Your task to perform on an android device: turn smart compose on in the gmail app Image 0: 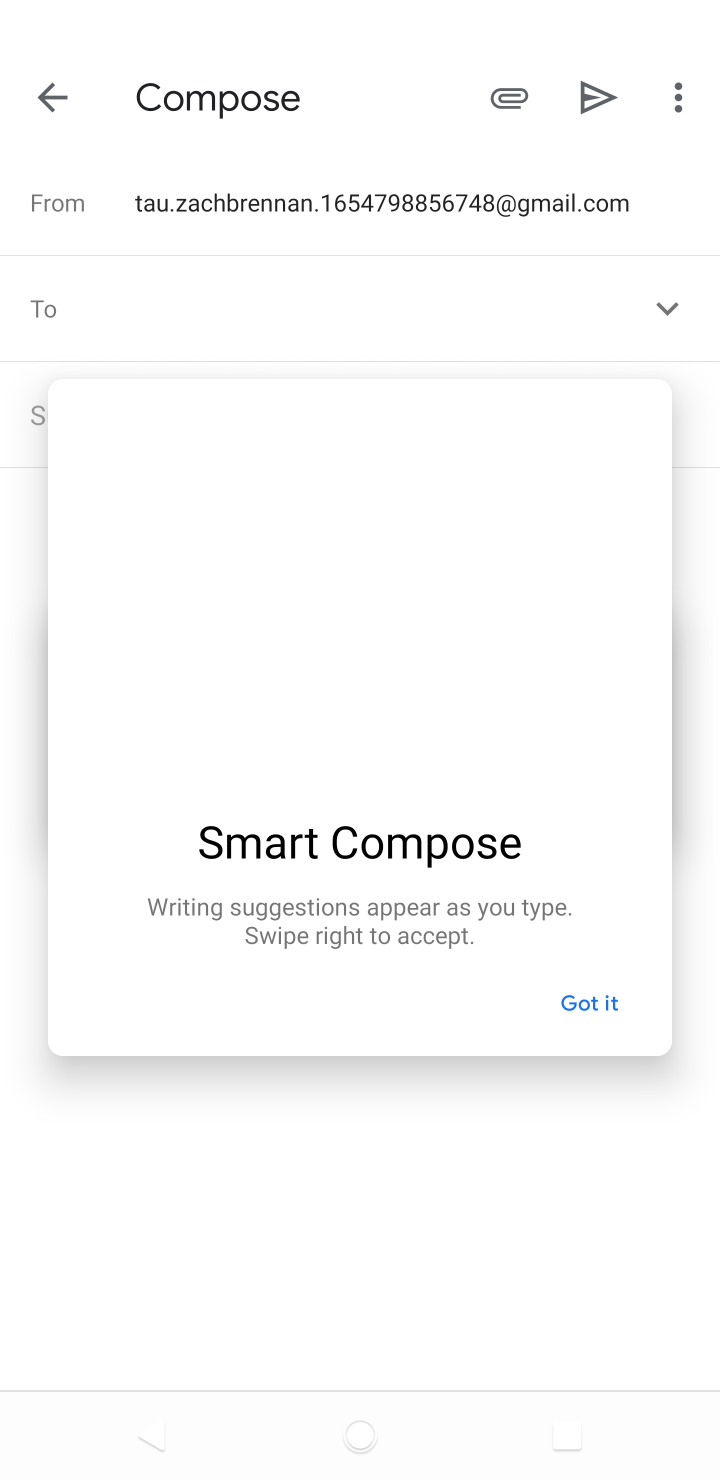
Step 0: click (185, 1332)
Your task to perform on an android device: turn smart compose on in the gmail app Image 1: 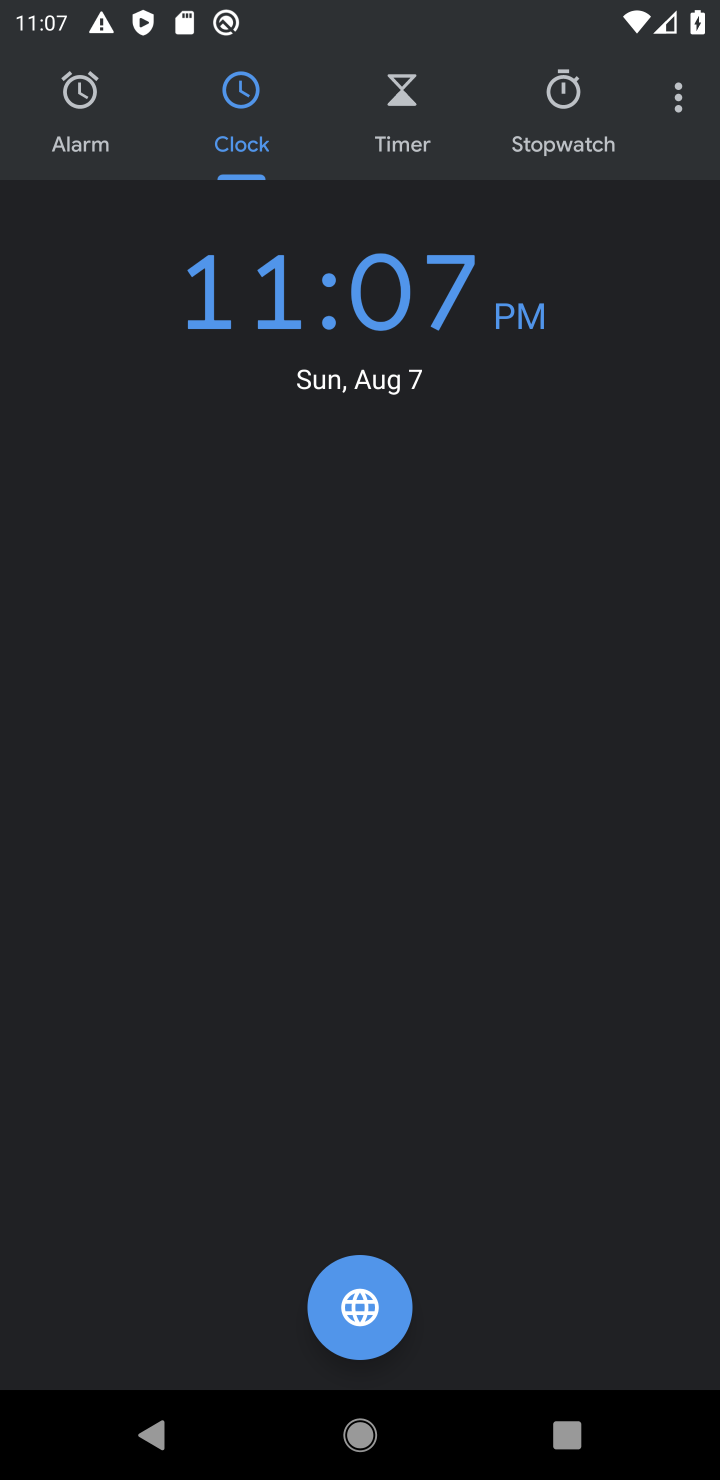
Step 1: press home button
Your task to perform on an android device: turn smart compose on in the gmail app Image 2: 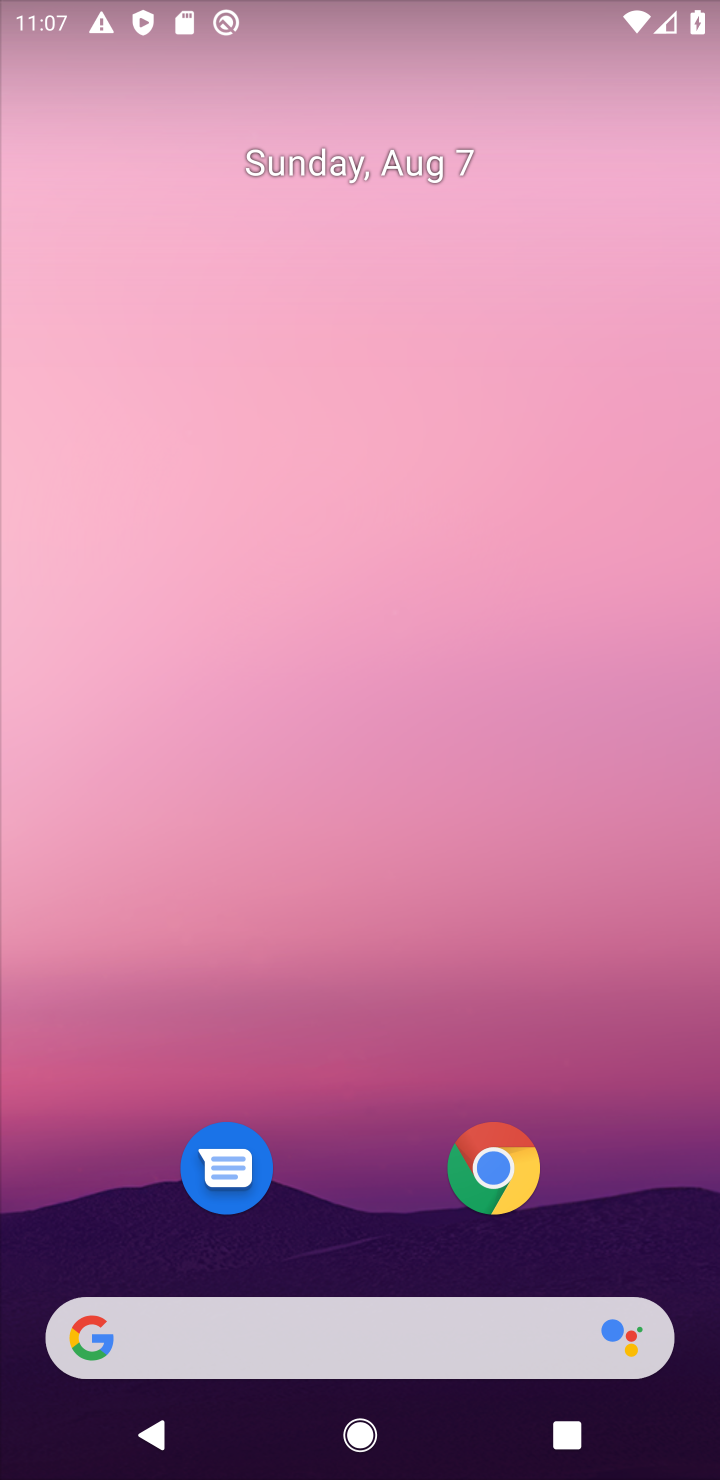
Step 2: drag from (58, 1435) to (359, 75)
Your task to perform on an android device: turn smart compose on in the gmail app Image 3: 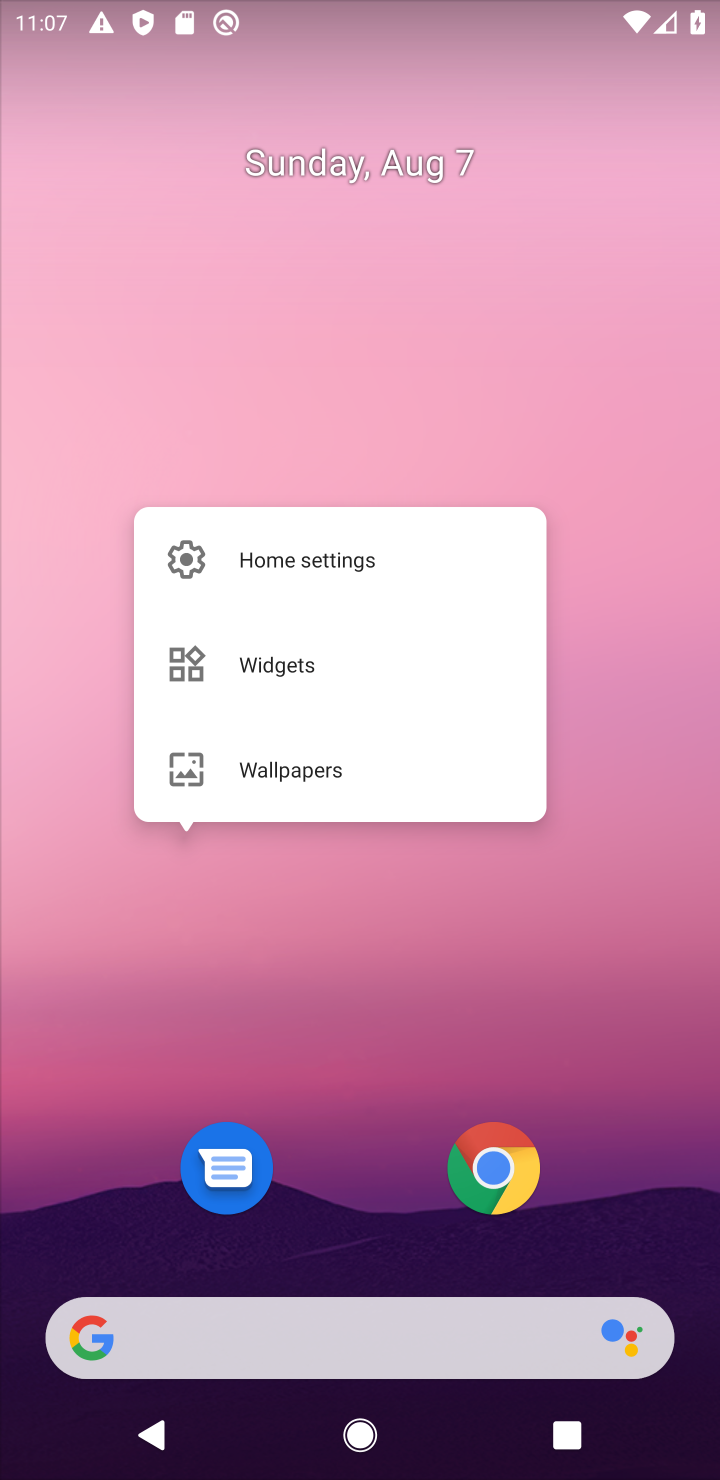
Step 3: click (46, 1368)
Your task to perform on an android device: turn smart compose on in the gmail app Image 4: 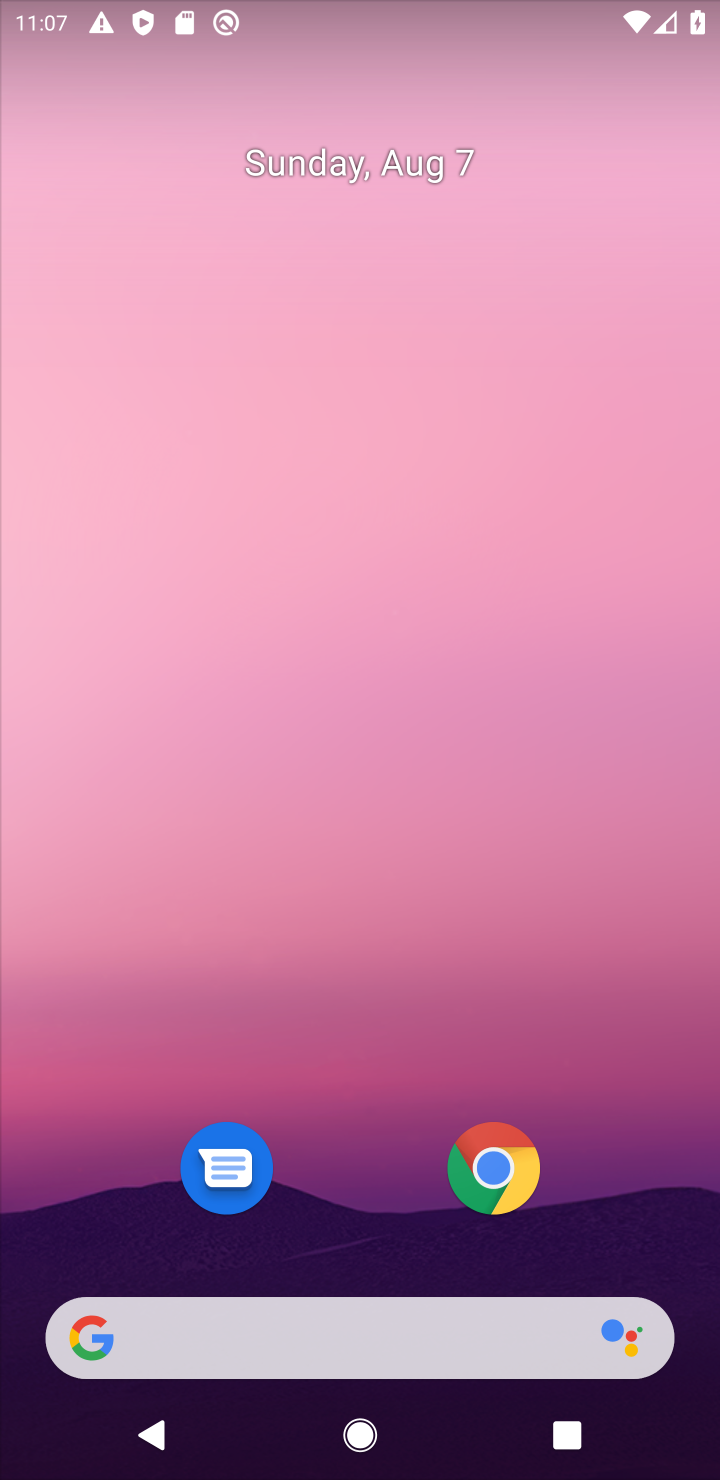
Step 4: click (74, 1422)
Your task to perform on an android device: turn smart compose on in the gmail app Image 5: 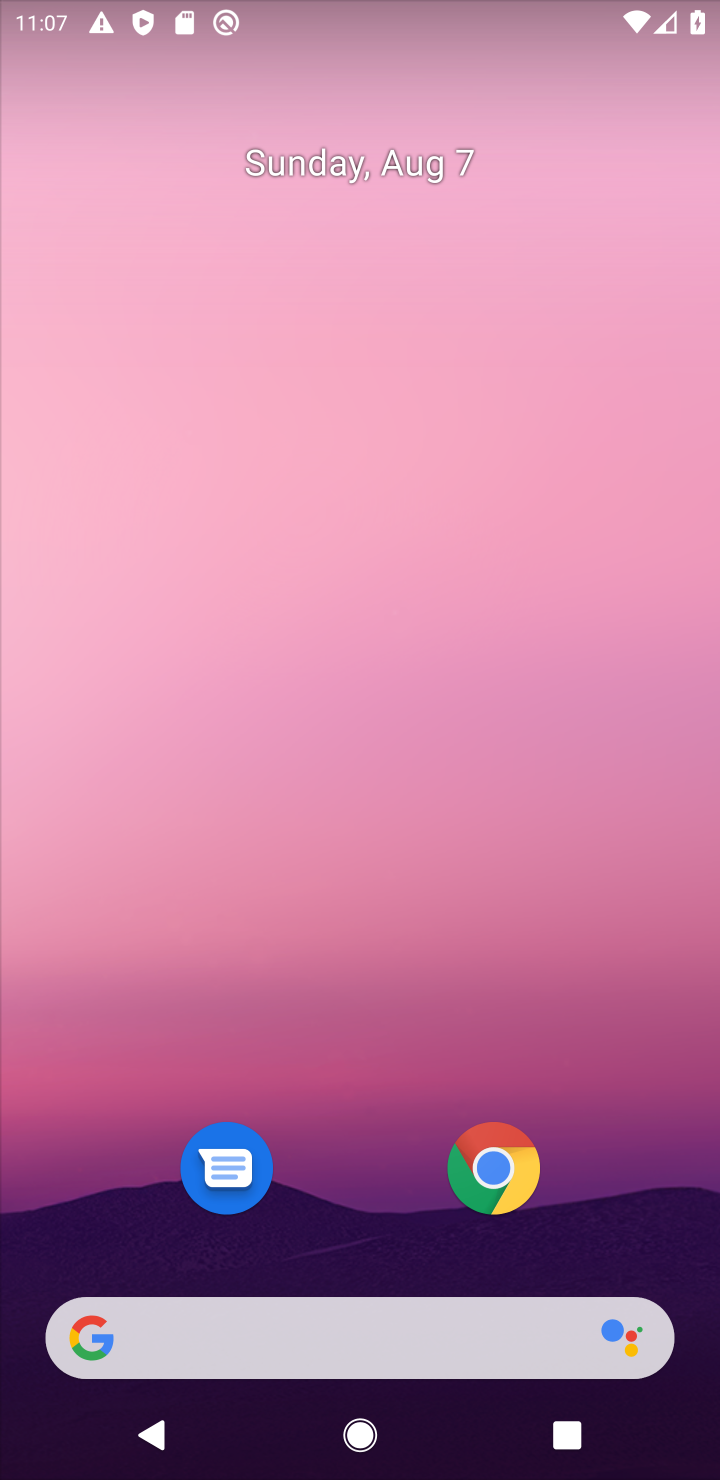
Step 5: drag from (74, 1422) to (256, 824)
Your task to perform on an android device: turn smart compose on in the gmail app Image 6: 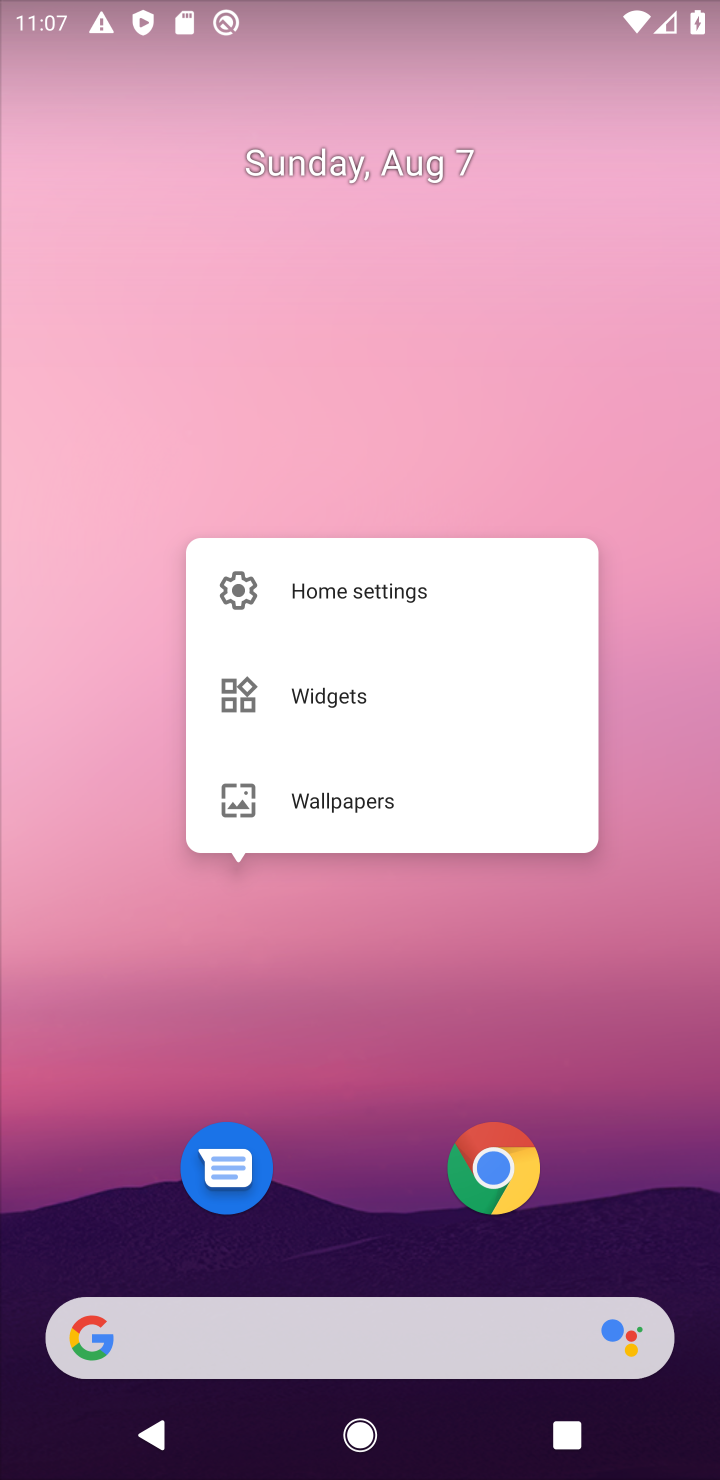
Step 6: drag from (60, 1427) to (364, 609)
Your task to perform on an android device: turn smart compose on in the gmail app Image 7: 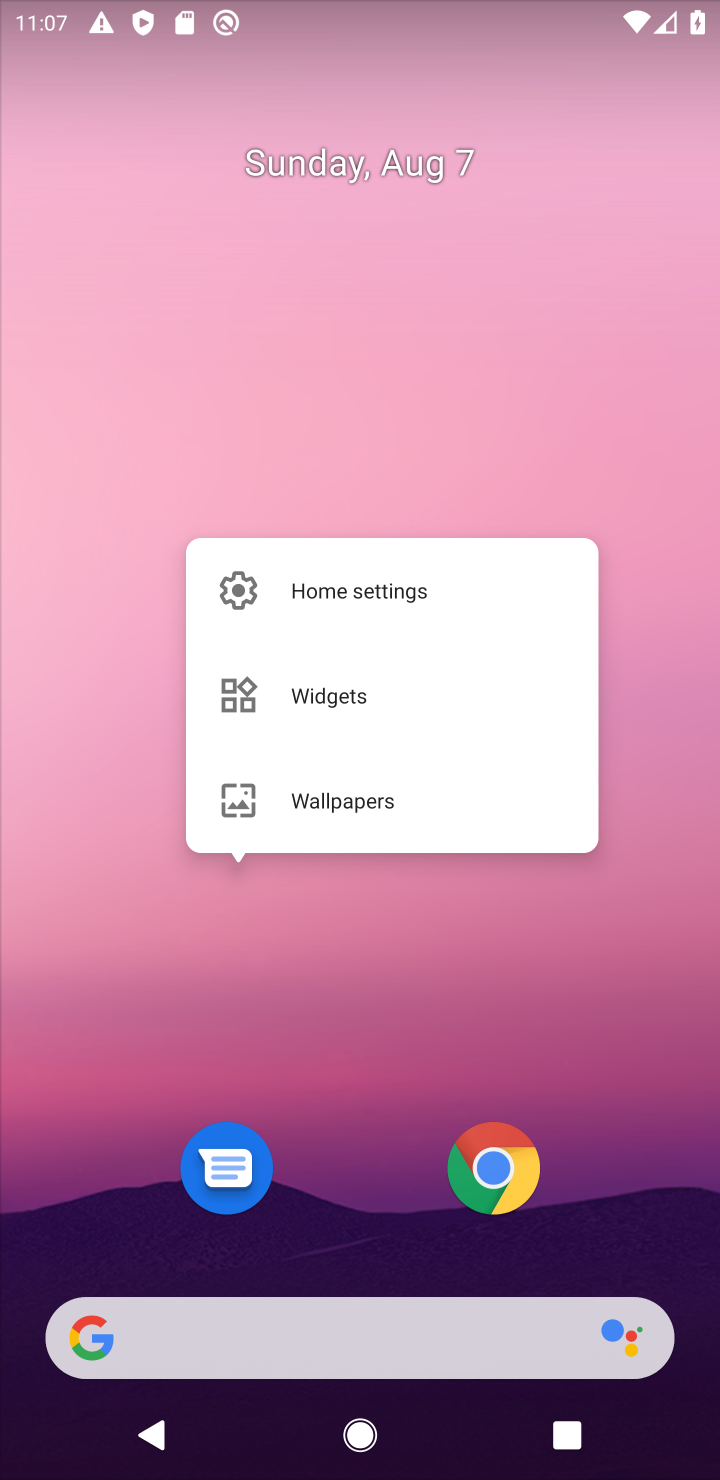
Step 7: click (148, 1168)
Your task to perform on an android device: turn smart compose on in the gmail app Image 8: 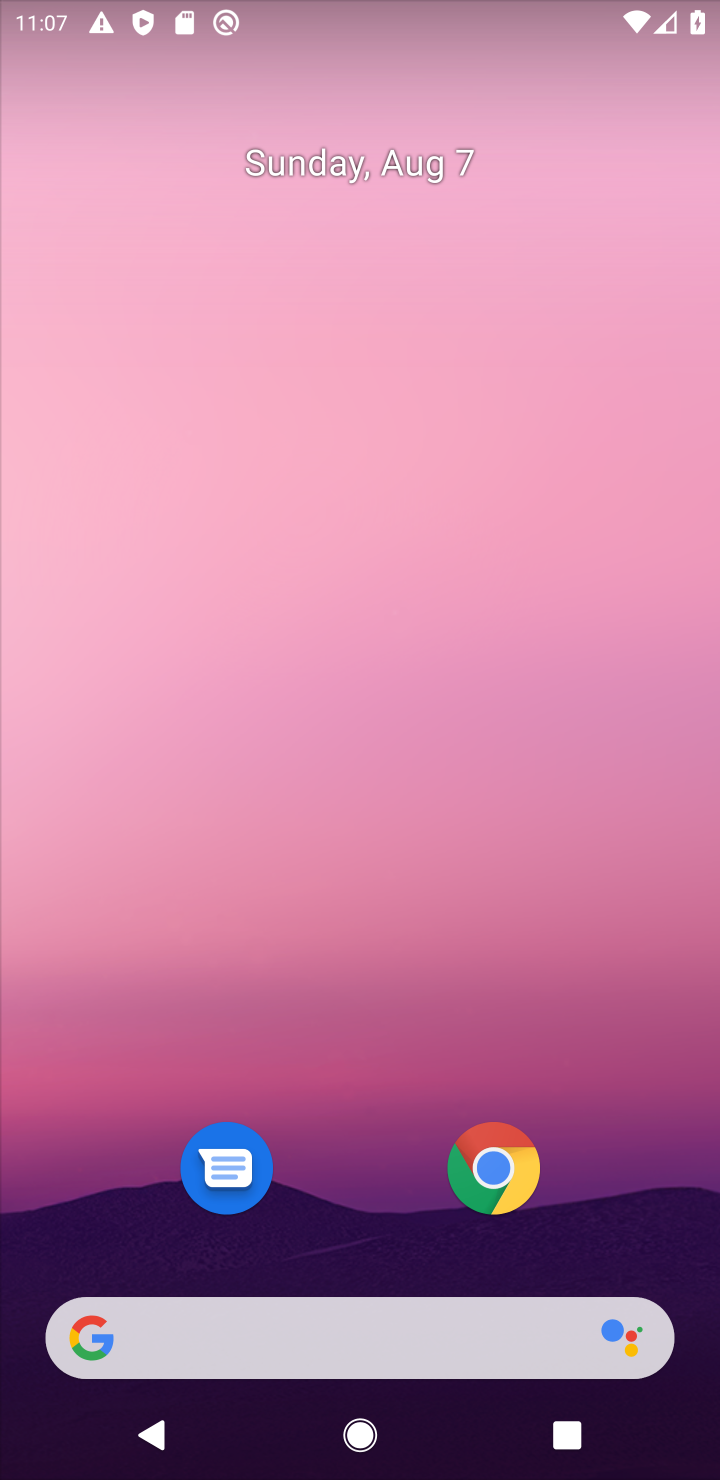
Step 8: click (84, 1390)
Your task to perform on an android device: turn smart compose on in the gmail app Image 9: 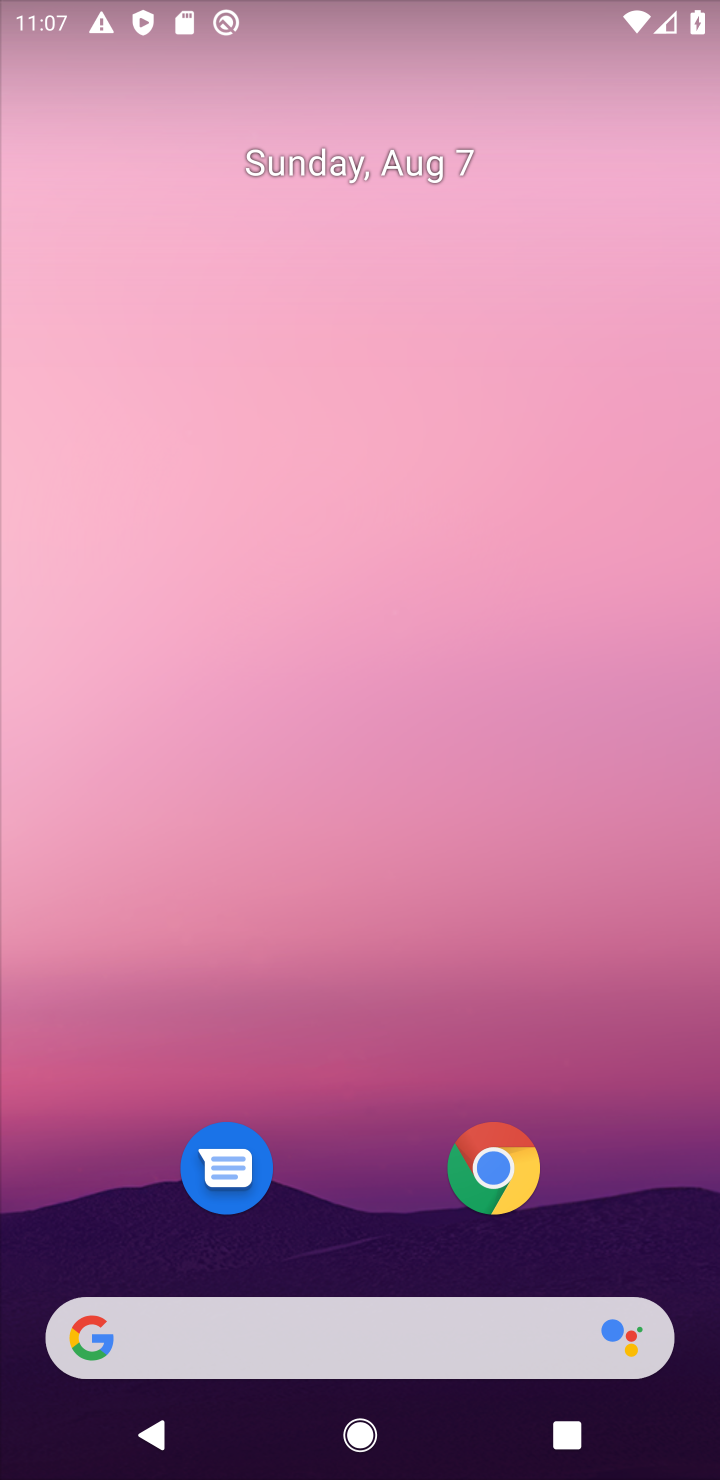
Step 9: task complete